Your task to perform on an android device: clear history in the chrome app Image 0: 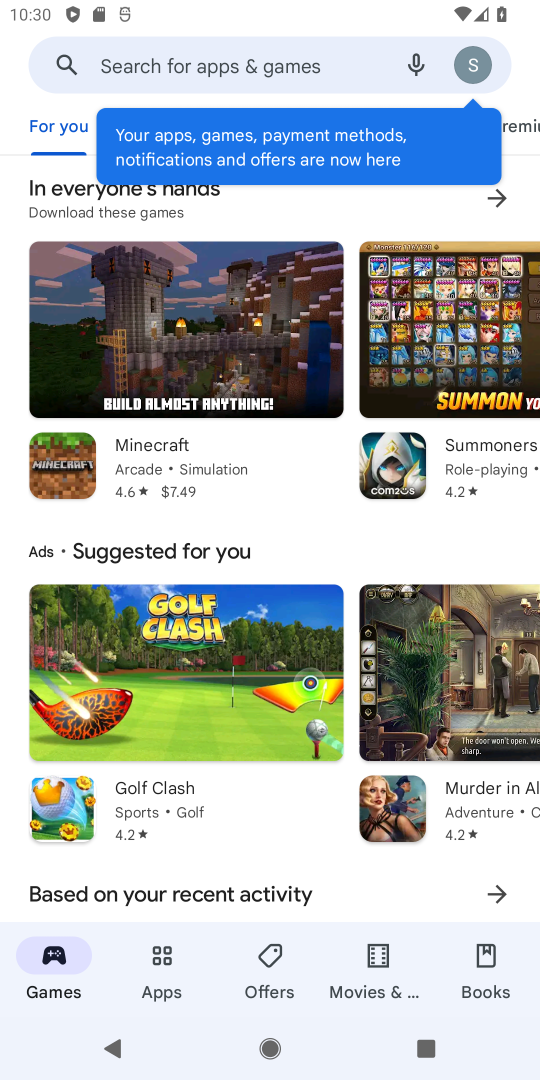
Step 0: press home button
Your task to perform on an android device: clear history in the chrome app Image 1: 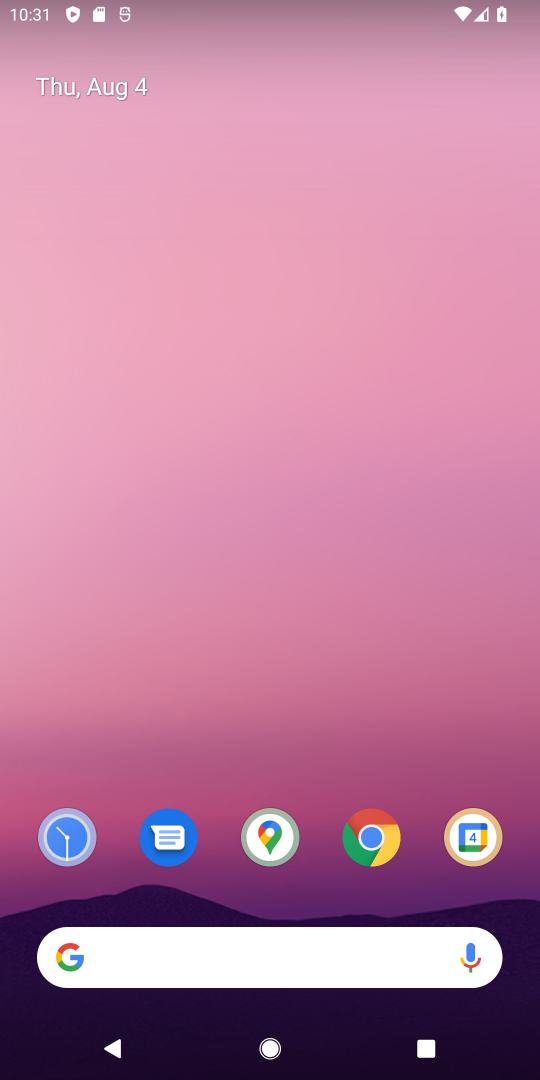
Step 1: drag from (364, 643) to (157, 77)
Your task to perform on an android device: clear history in the chrome app Image 2: 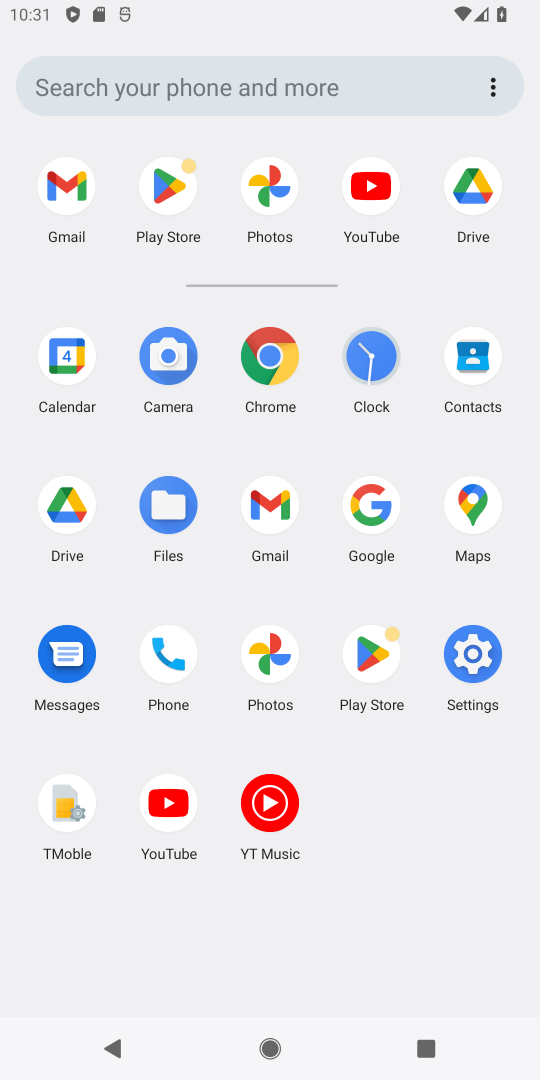
Step 2: click (265, 328)
Your task to perform on an android device: clear history in the chrome app Image 3: 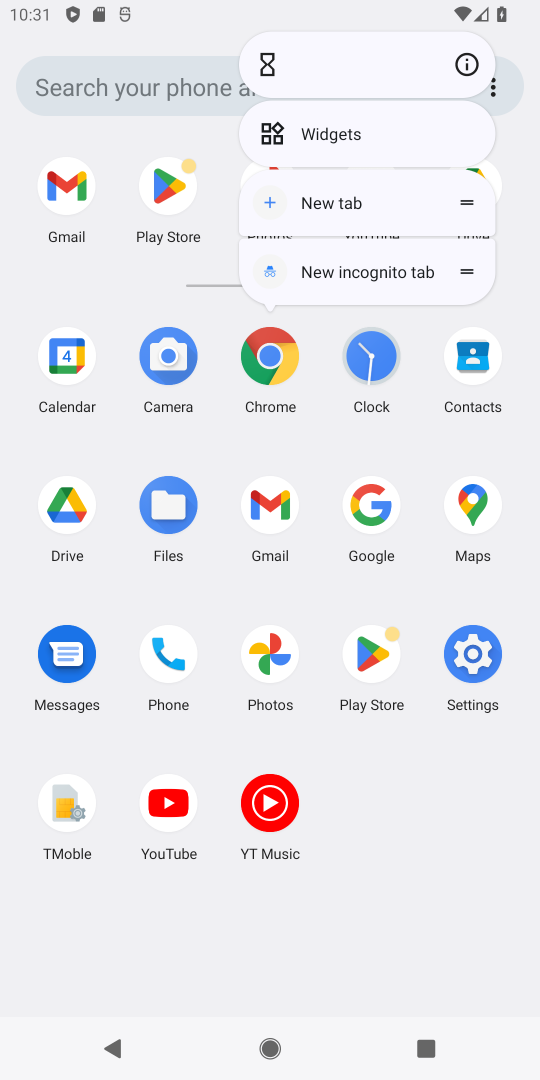
Step 3: click (268, 360)
Your task to perform on an android device: clear history in the chrome app Image 4: 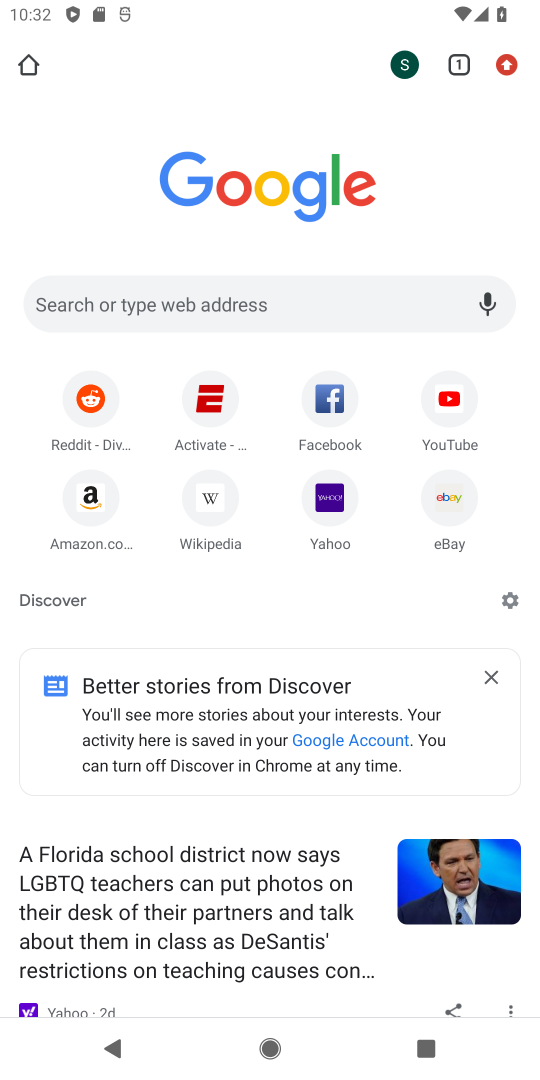
Step 4: click (491, 62)
Your task to perform on an android device: clear history in the chrome app Image 5: 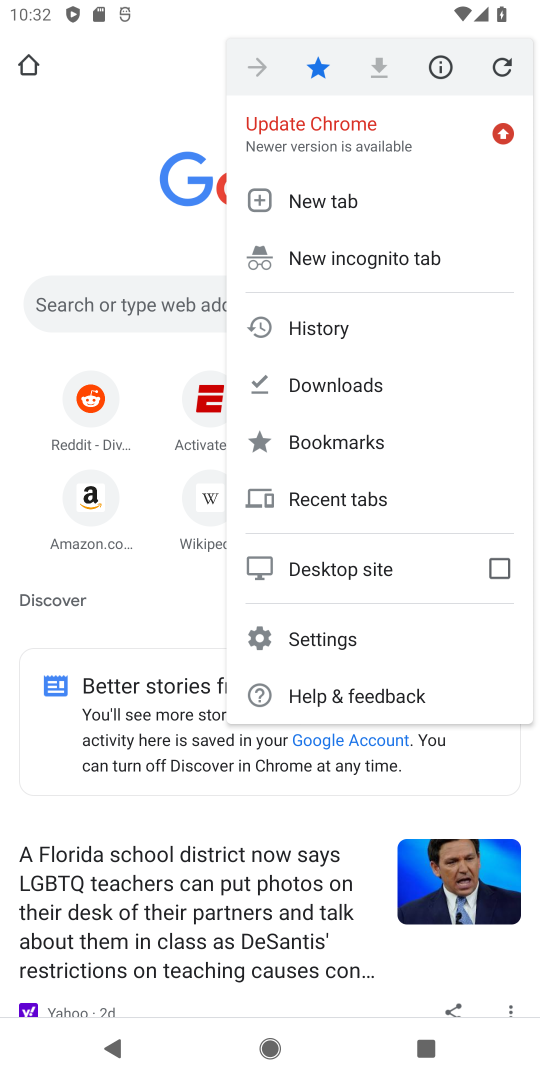
Step 5: click (358, 331)
Your task to perform on an android device: clear history in the chrome app Image 6: 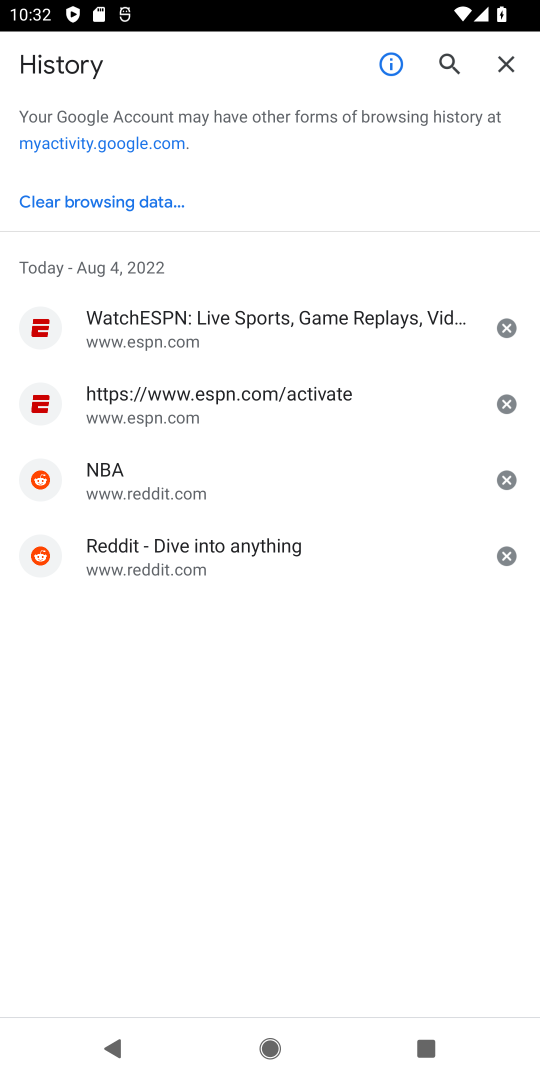
Step 6: click (89, 190)
Your task to perform on an android device: clear history in the chrome app Image 7: 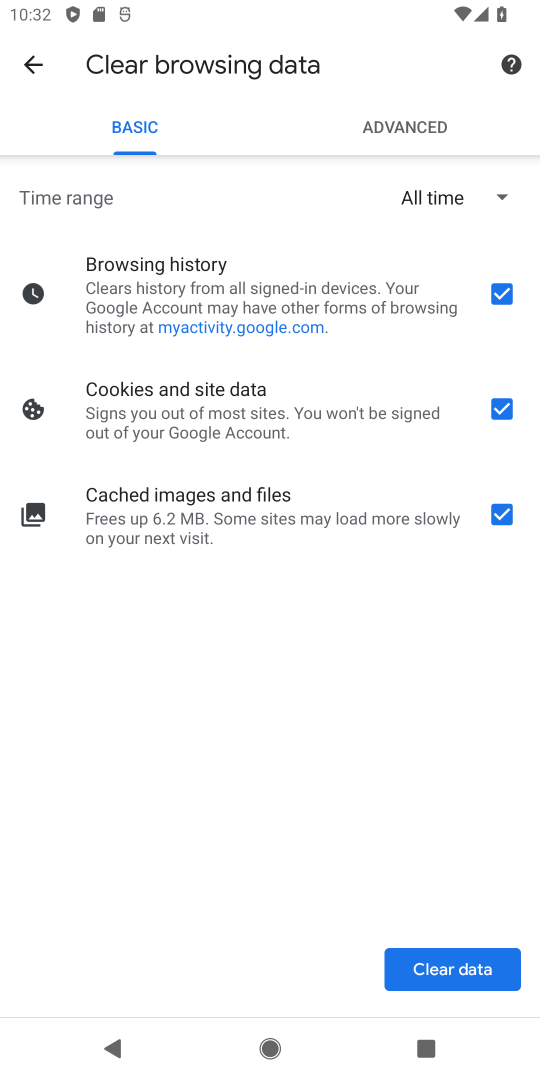
Step 7: click (445, 958)
Your task to perform on an android device: clear history in the chrome app Image 8: 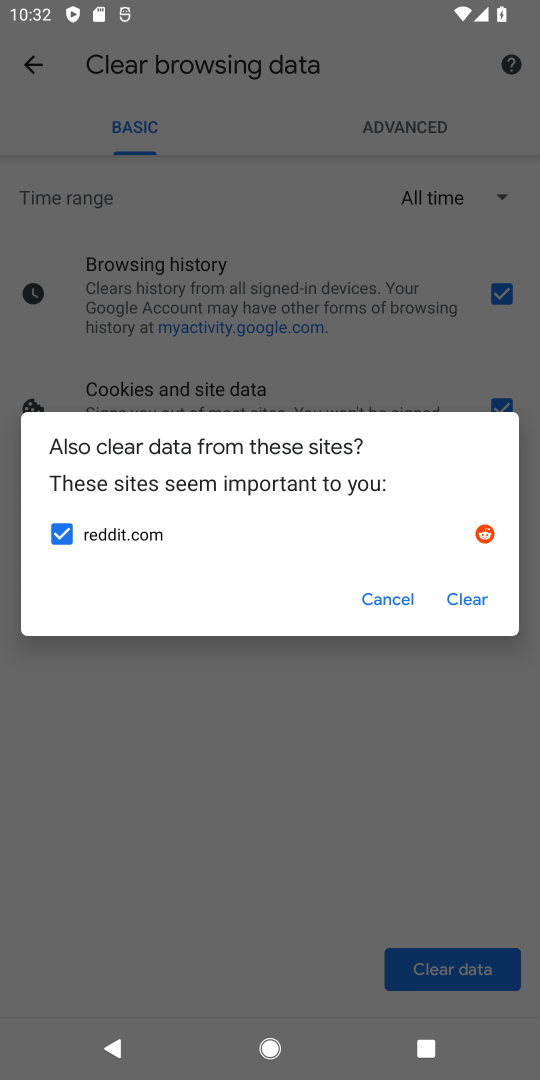
Step 8: click (468, 598)
Your task to perform on an android device: clear history in the chrome app Image 9: 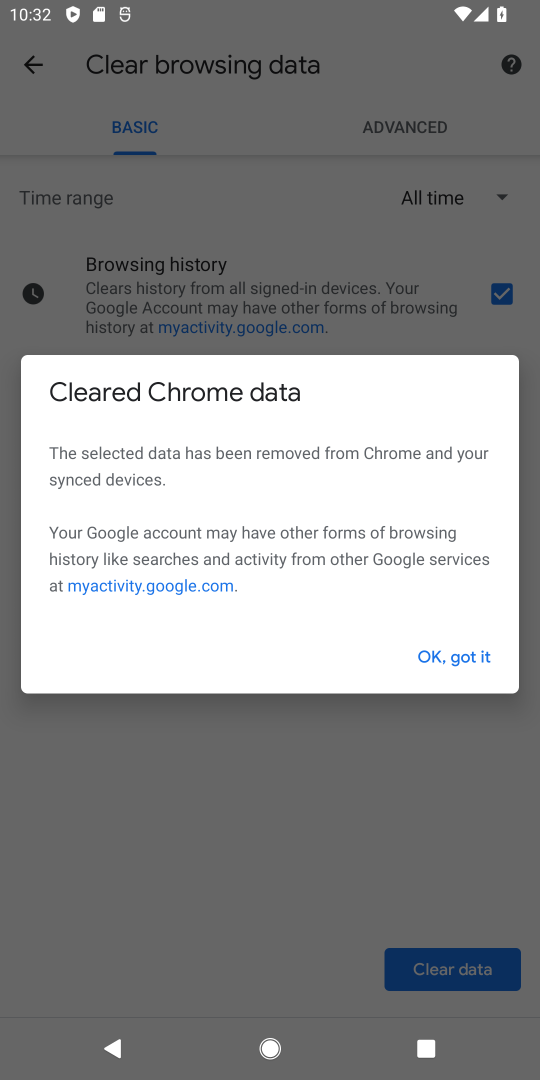
Step 9: click (446, 671)
Your task to perform on an android device: clear history in the chrome app Image 10: 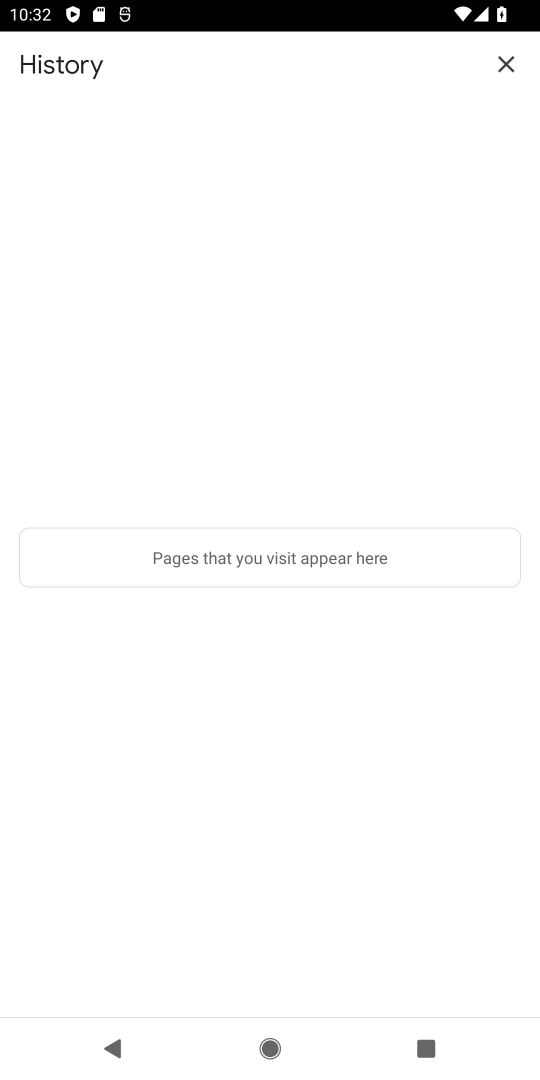
Step 10: task complete